Your task to perform on an android device: turn off improve location accuracy Image 0: 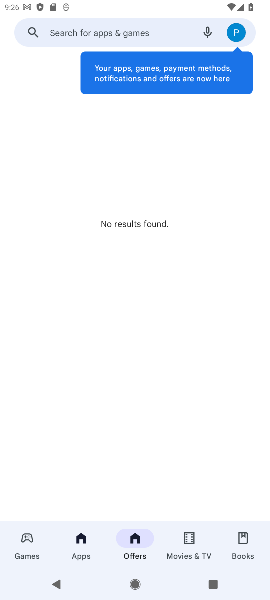
Step 0: press home button
Your task to perform on an android device: turn off improve location accuracy Image 1: 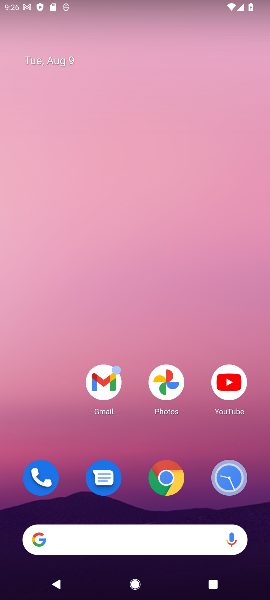
Step 1: click (117, 107)
Your task to perform on an android device: turn off improve location accuracy Image 2: 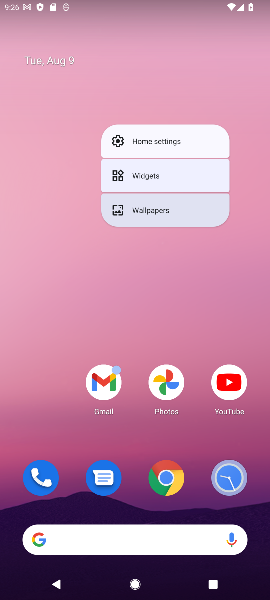
Step 2: click (77, 267)
Your task to perform on an android device: turn off improve location accuracy Image 3: 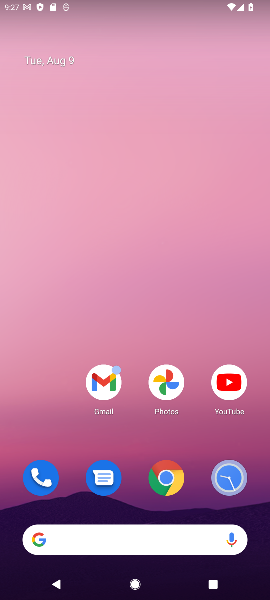
Step 3: drag from (129, 329) to (140, 86)
Your task to perform on an android device: turn off improve location accuracy Image 4: 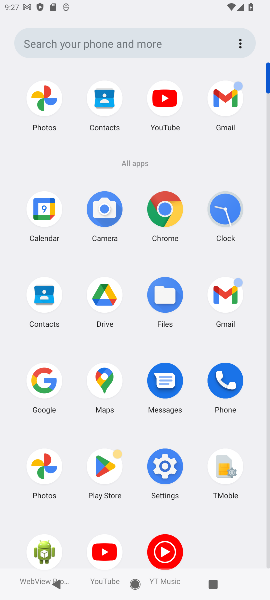
Step 4: click (161, 467)
Your task to perform on an android device: turn off improve location accuracy Image 5: 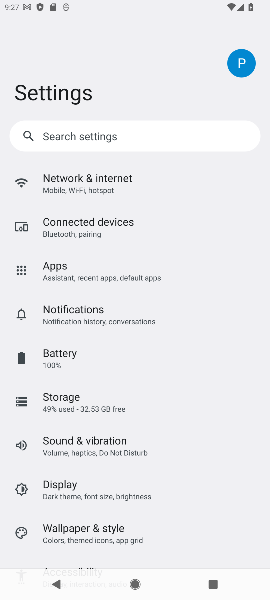
Step 5: task complete